Your task to perform on an android device: Open my contact list Image 0: 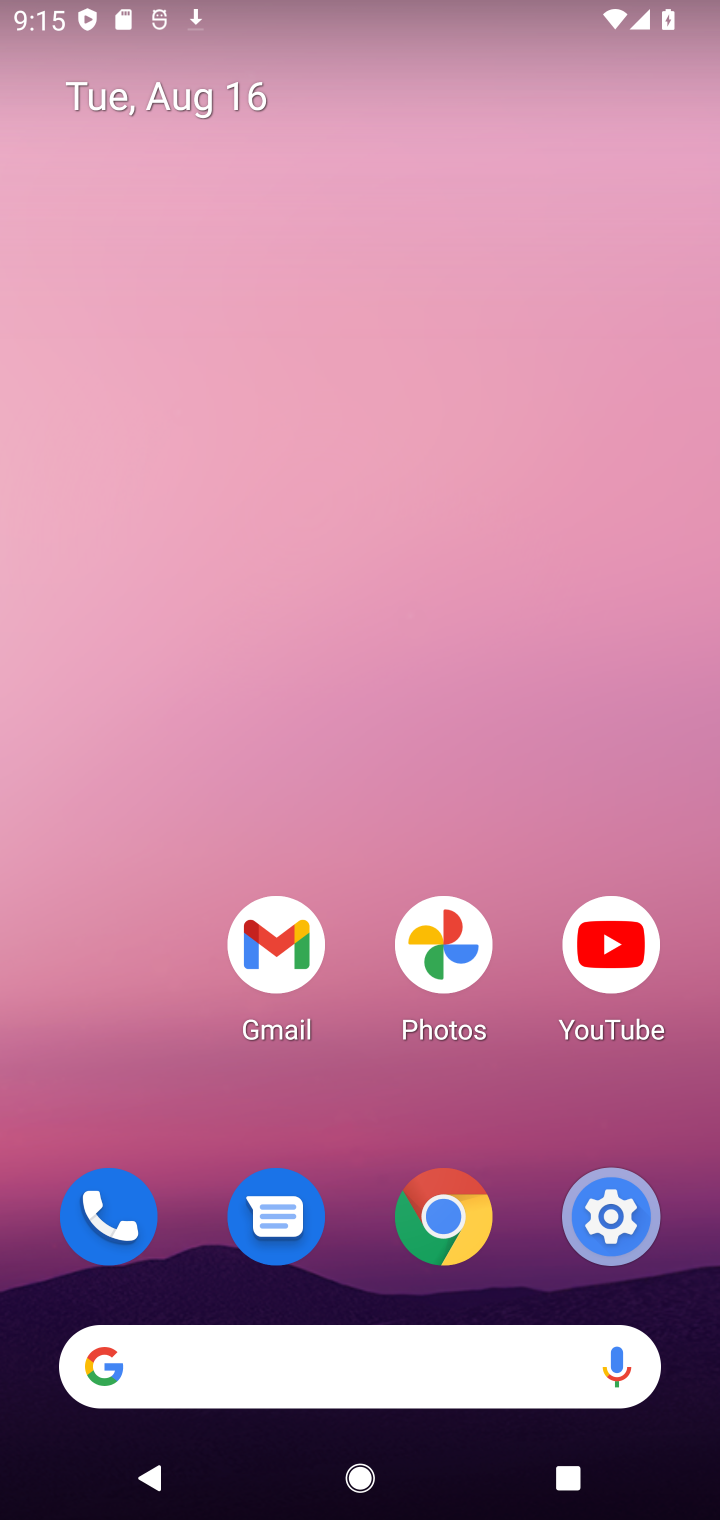
Step 0: drag from (322, 1233) to (376, 211)
Your task to perform on an android device: Open my contact list Image 1: 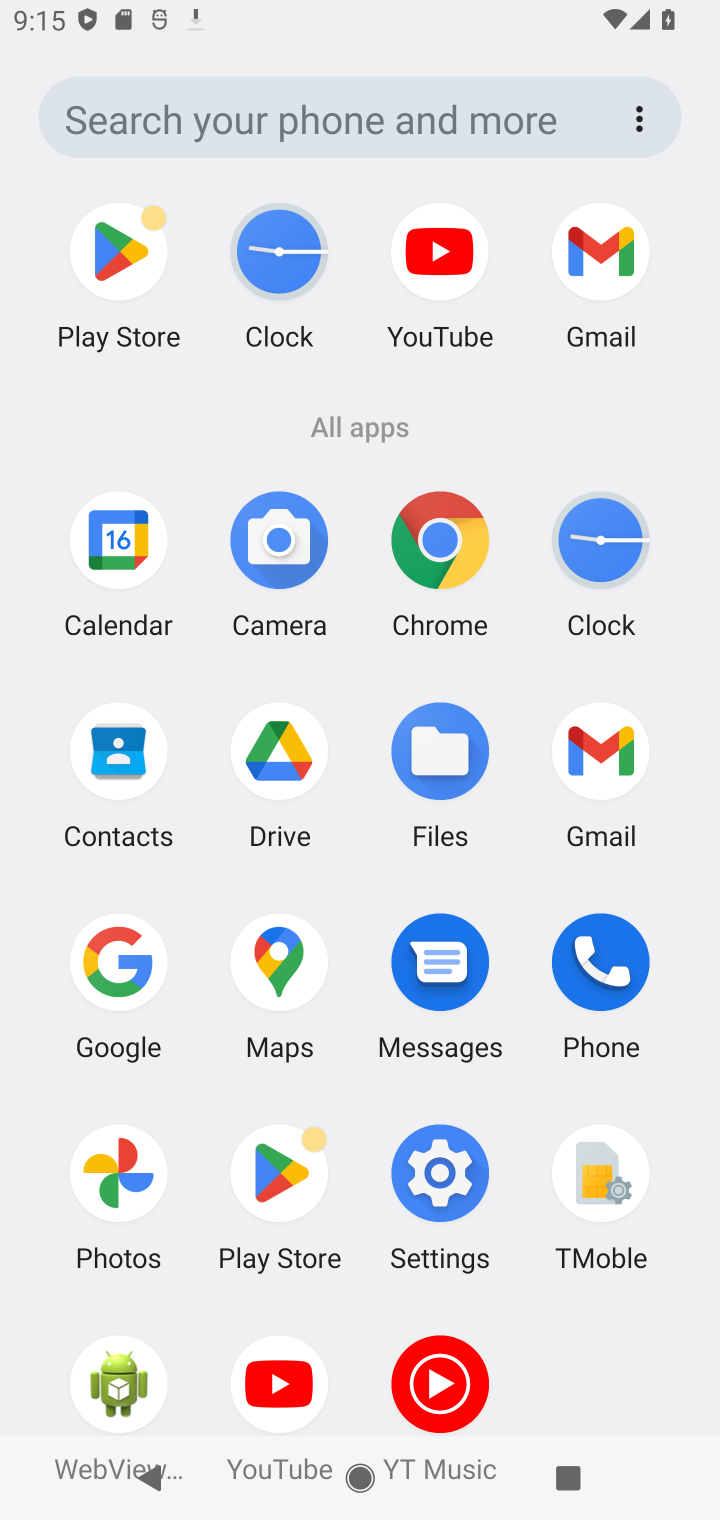
Step 1: click (100, 753)
Your task to perform on an android device: Open my contact list Image 2: 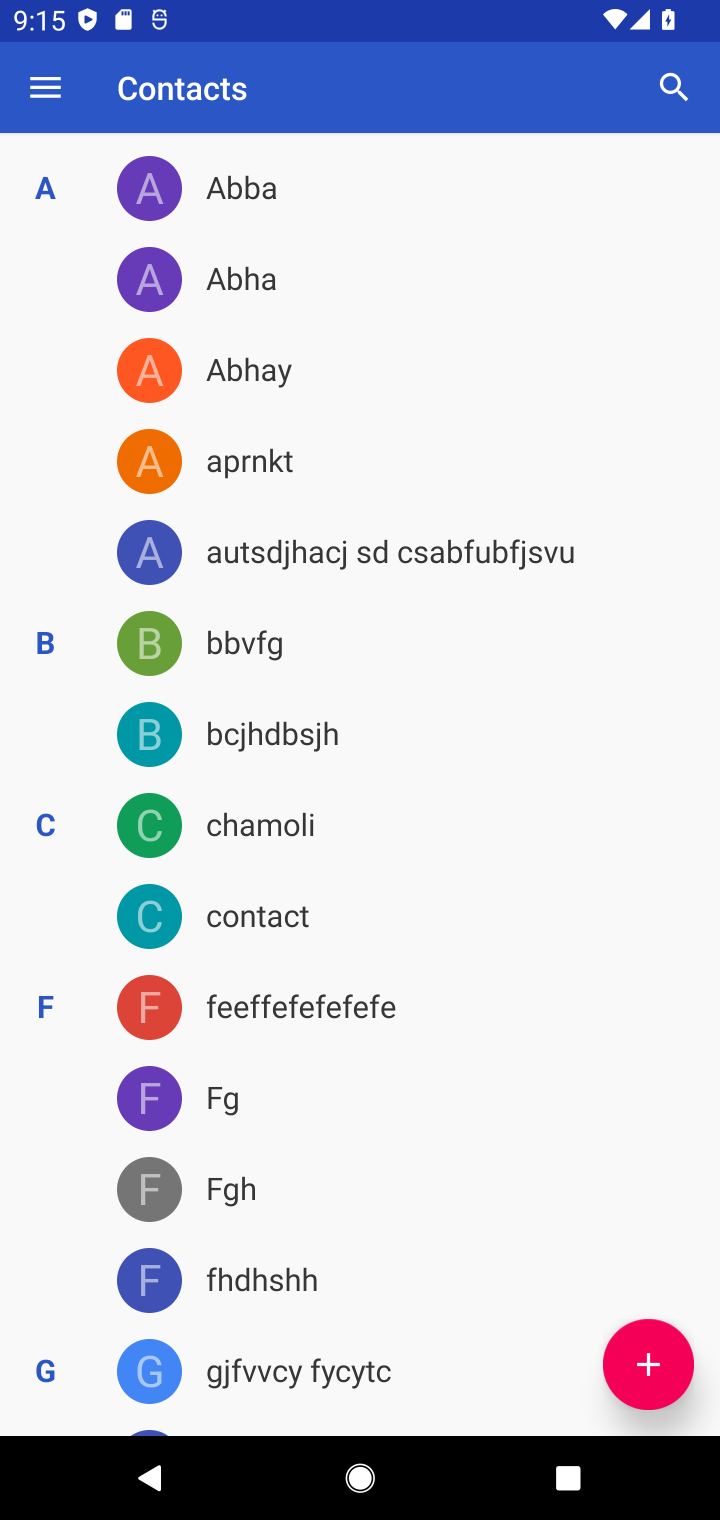
Step 2: task complete